Your task to perform on an android device: Open the web browser Image 0: 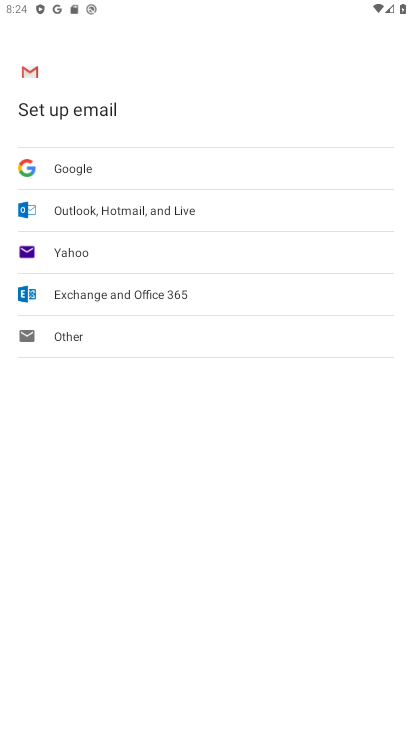
Step 0: click (144, 646)
Your task to perform on an android device: Open the web browser Image 1: 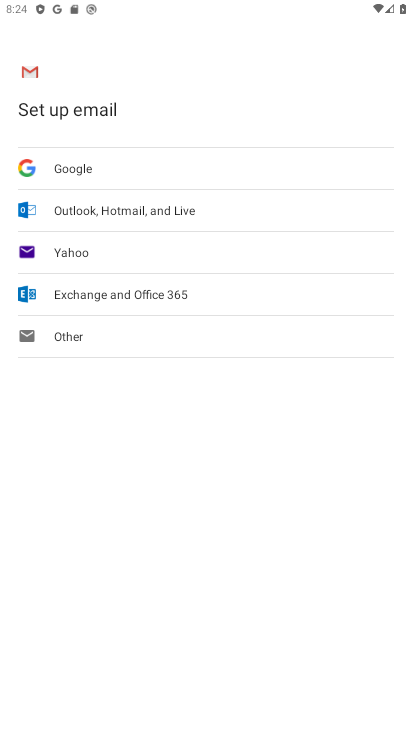
Step 1: press home button
Your task to perform on an android device: Open the web browser Image 2: 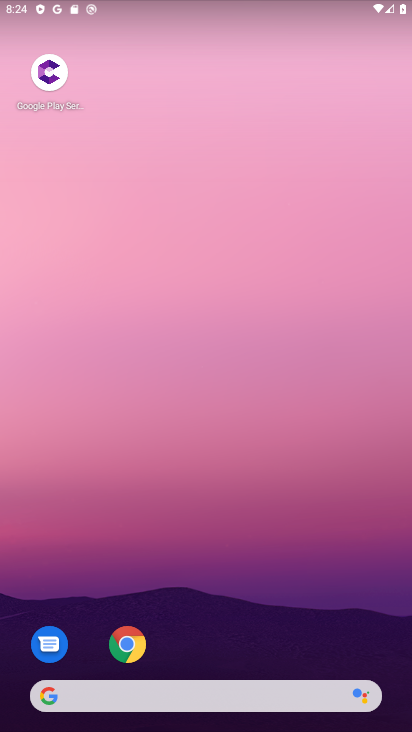
Step 2: click (118, 635)
Your task to perform on an android device: Open the web browser Image 3: 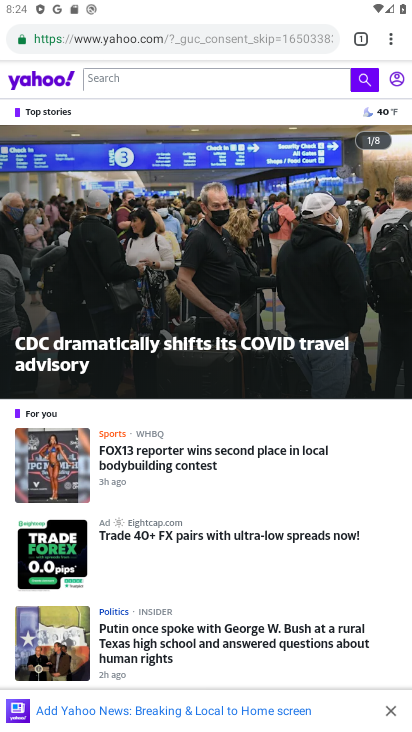
Step 3: task complete